Your task to perform on an android device: open wifi settings Image 0: 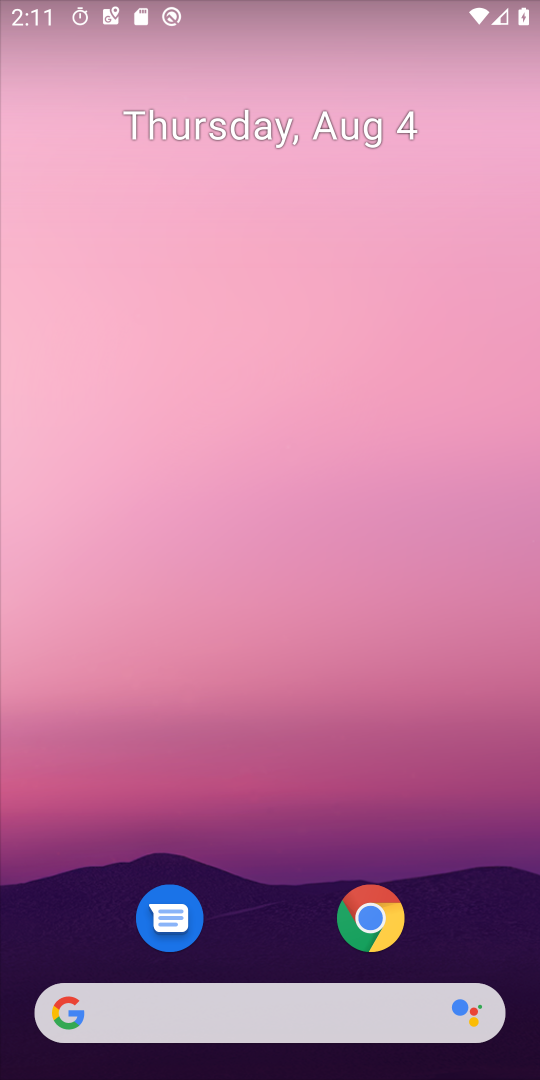
Step 0: drag from (288, 894) to (262, 336)
Your task to perform on an android device: open wifi settings Image 1: 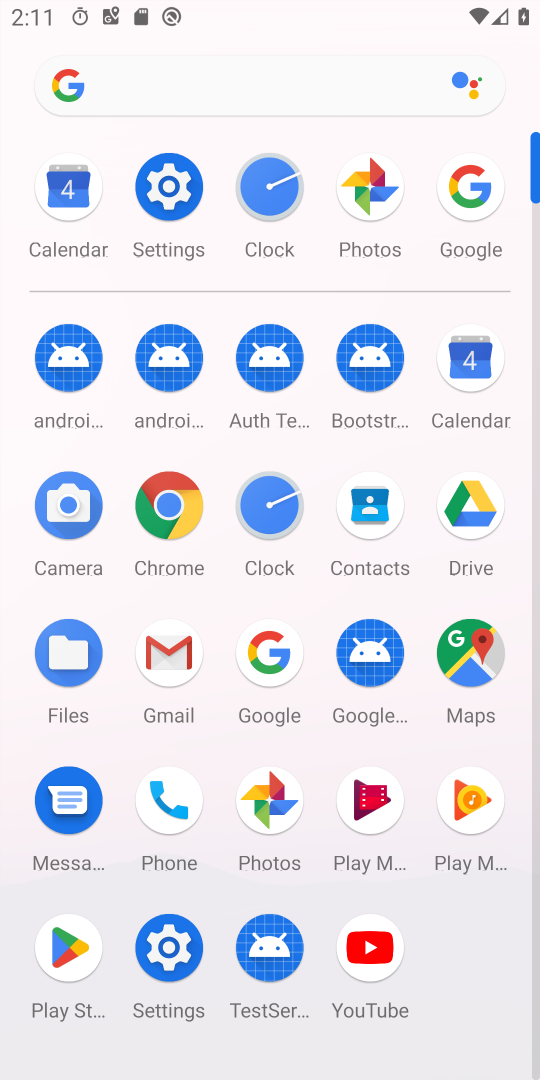
Step 1: click (169, 210)
Your task to perform on an android device: open wifi settings Image 2: 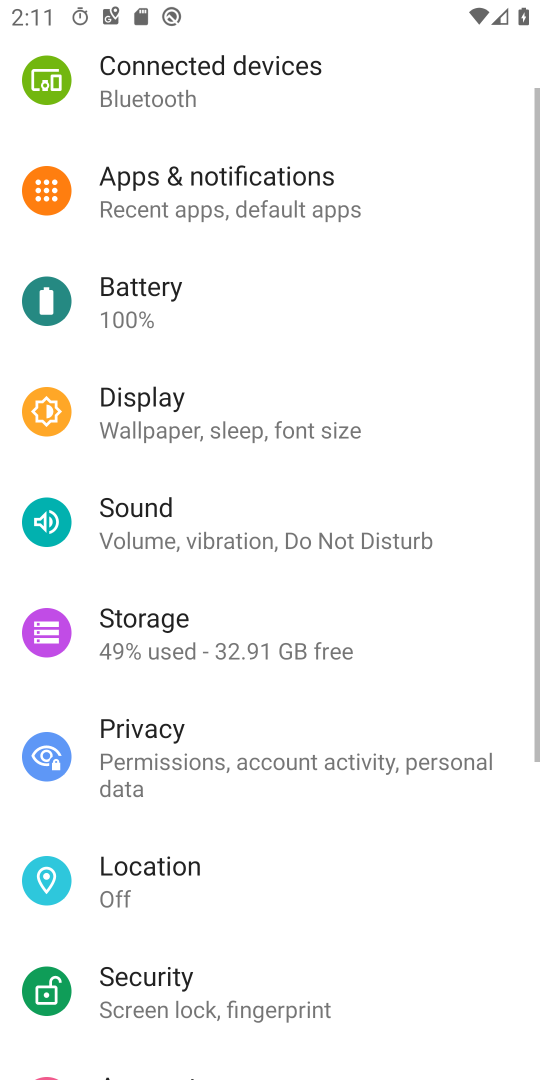
Step 2: drag from (223, 179) to (289, 731)
Your task to perform on an android device: open wifi settings Image 3: 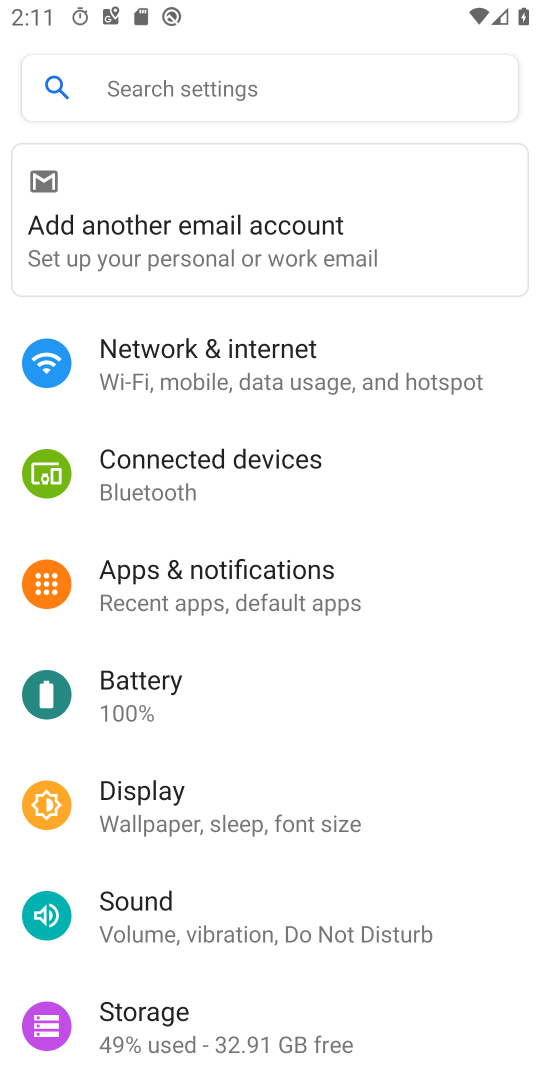
Step 3: click (219, 371)
Your task to perform on an android device: open wifi settings Image 4: 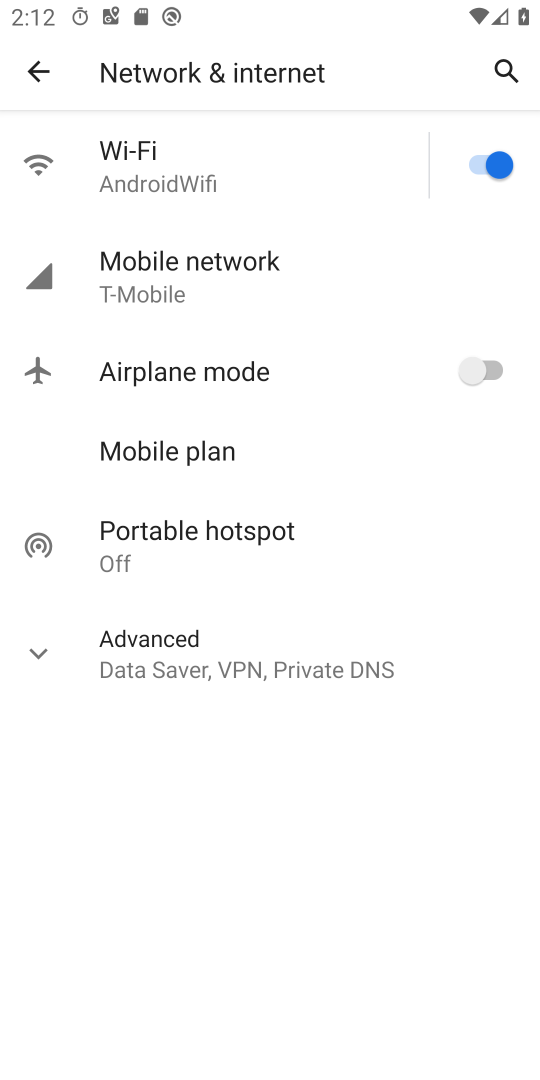
Step 4: click (175, 171)
Your task to perform on an android device: open wifi settings Image 5: 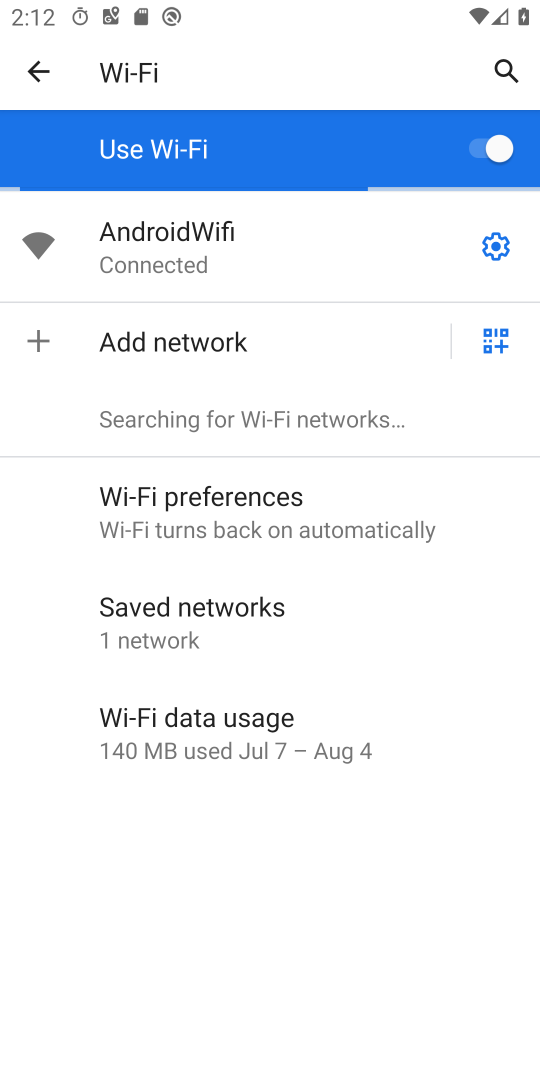
Step 5: task complete